Your task to perform on an android device: Open location settings Image 0: 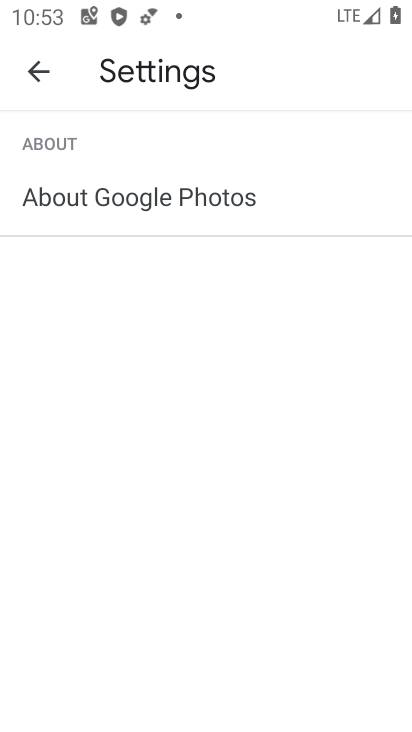
Step 0: press home button
Your task to perform on an android device: Open location settings Image 1: 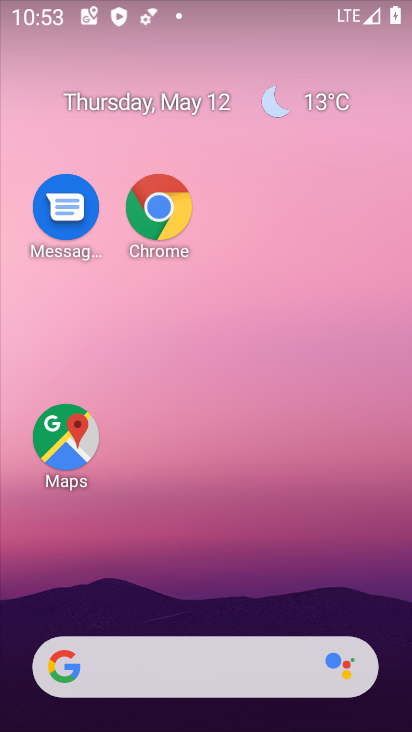
Step 1: drag from (187, 610) to (198, 7)
Your task to perform on an android device: Open location settings Image 2: 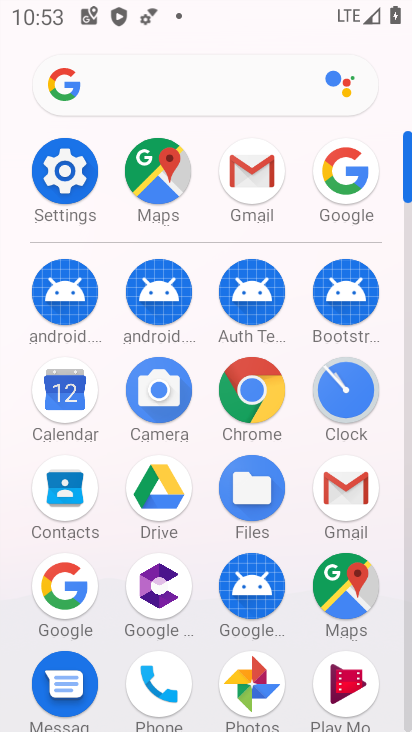
Step 2: click (54, 178)
Your task to perform on an android device: Open location settings Image 3: 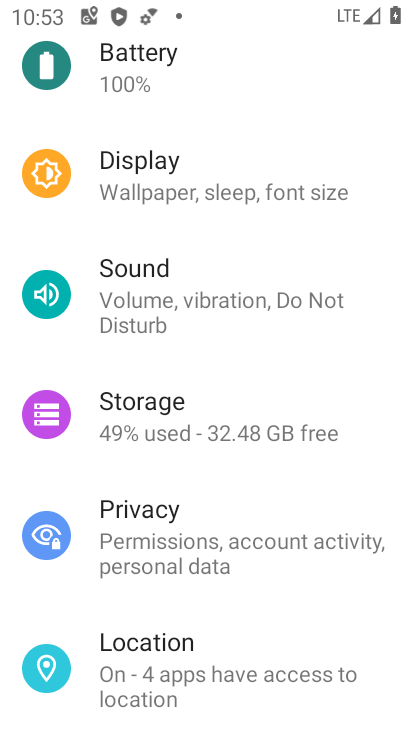
Step 3: click (171, 635)
Your task to perform on an android device: Open location settings Image 4: 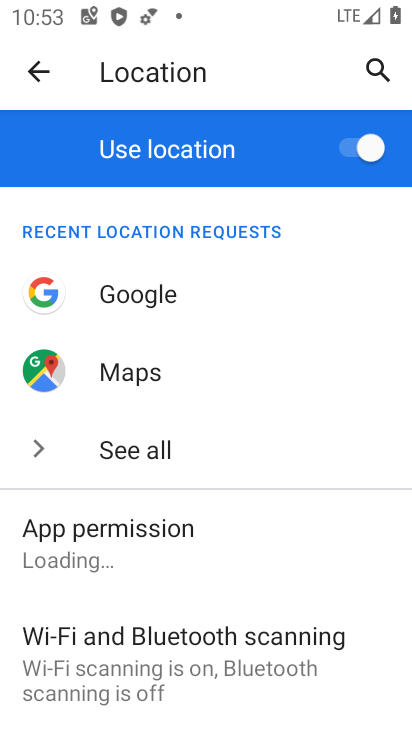
Step 4: drag from (198, 653) to (174, 178)
Your task to perform on an android device: Open location settings Image 5: 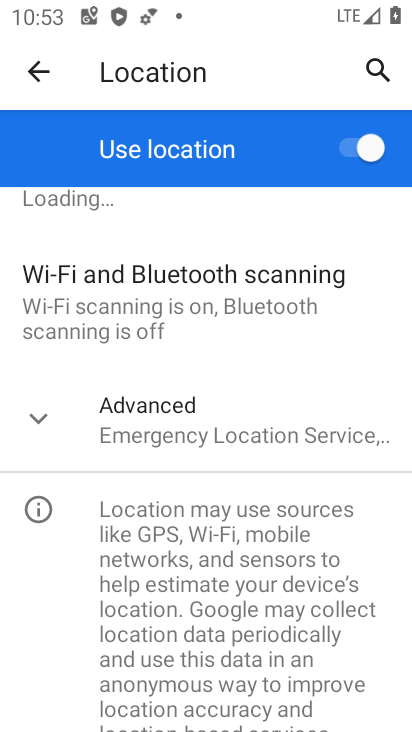
Step 5: click (165, 445)
Your task to perform on an android device: Open location settings Image 6: 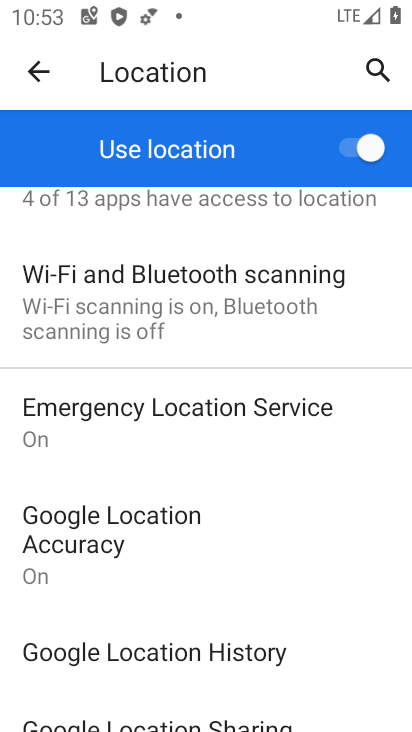
Step 6: task complete